Your task to perform on an android device: change alarm snooze length Image 0: 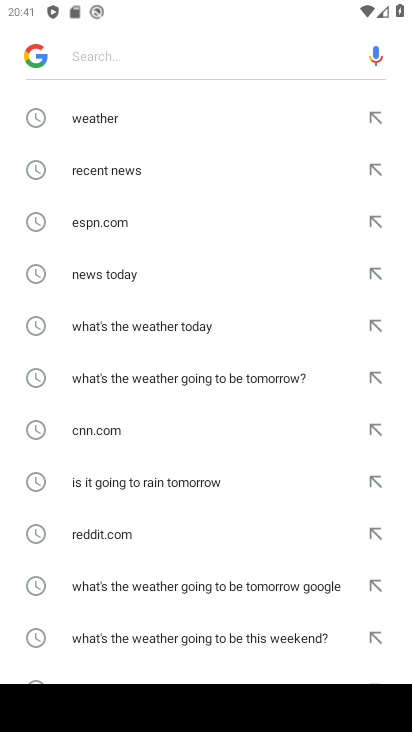
Step 0: press home button
Your task to perform on an android device: change alarm snooze length Image 1: 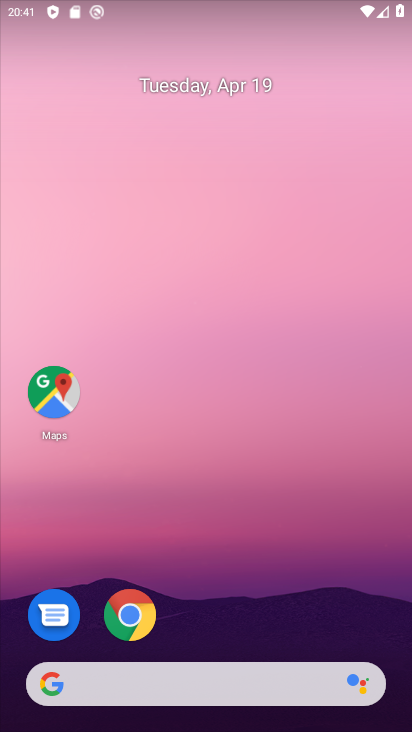
Step 1: drag from (236, 630) to (254, 274)
Your task to perform on an android device: change alarm snooze length Image 2: 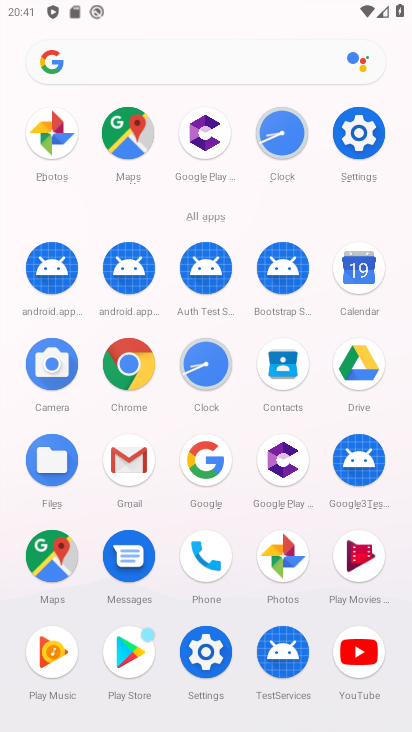
Step 2: click (282, 140)
Your task to perform on an android device: change alarm snooze length Image 3: 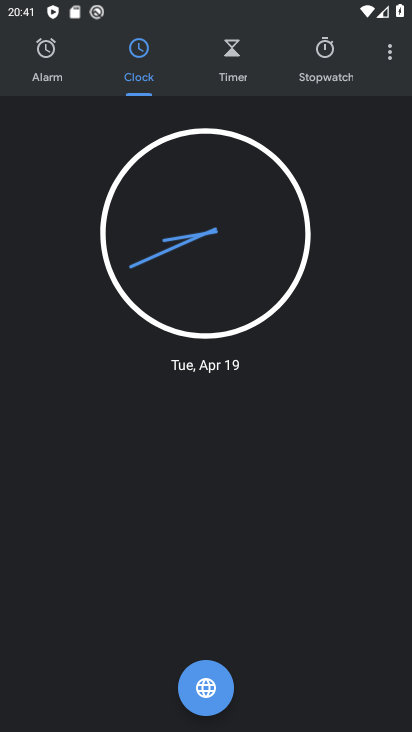
Step 3: click (388, 52)
Your task to perform on an android device: change alarm snooze length Image 4: 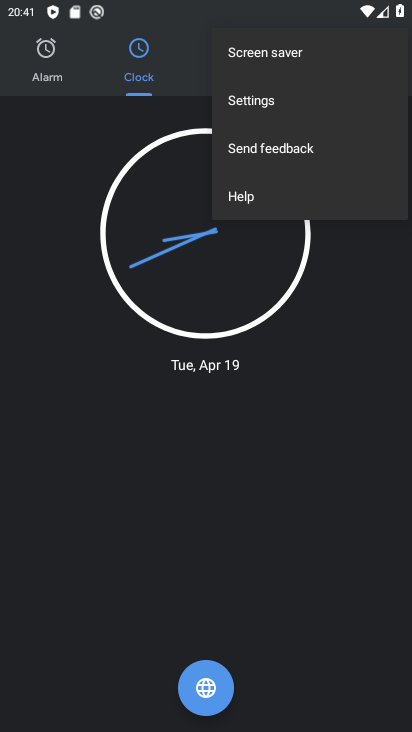
Step 4: click (263, 107)
Your task to perform on an android device: change alarm snooze length Image 5: 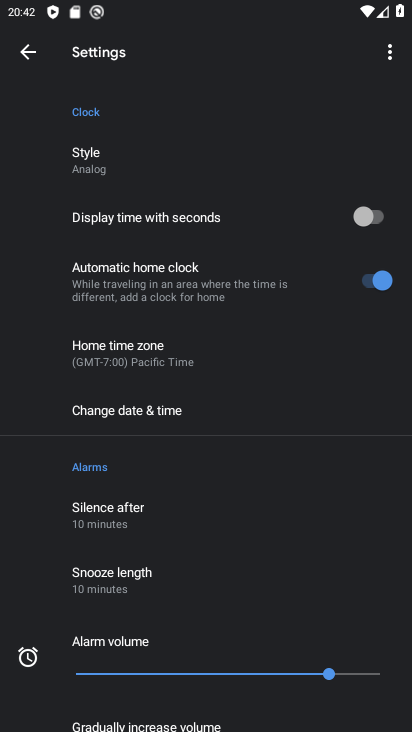
Step 5: drag from (139, 712) to (190, 359)
Your task to perform on an android device: change alarm snooze length Image 6: 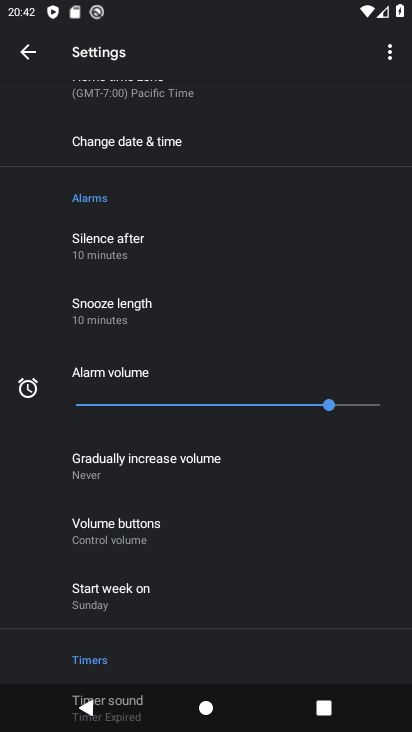
Step 6: click (144, 309)
Your task to perform on an android device: change alarm snooze length Image 7: 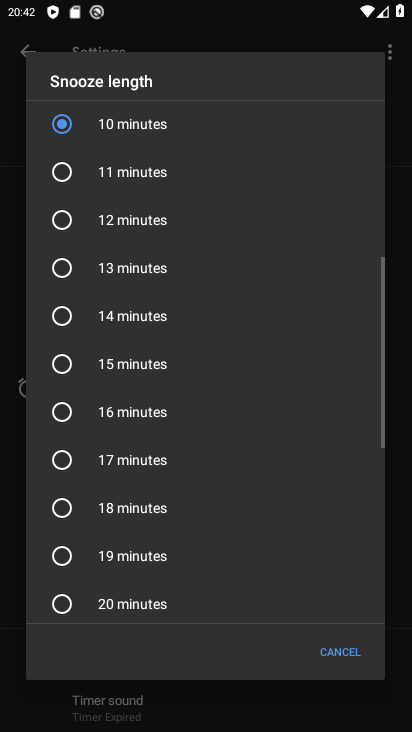
Step 7: click (117, 175)
Your task to perform on an android device: change alarm snooze length Image 8: 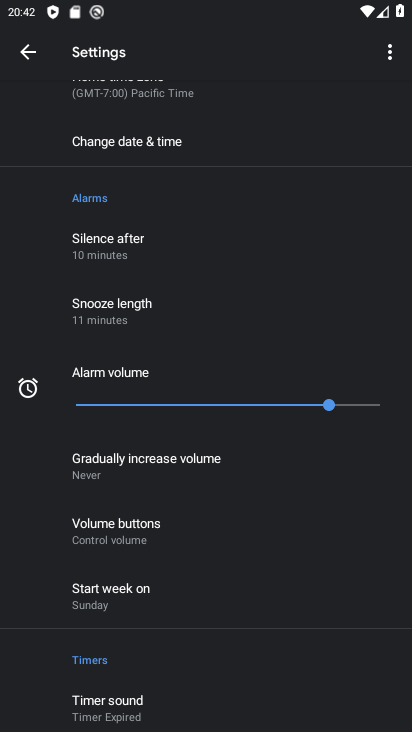
Step 8: task complete